Your task to perform on an android device: What's the weather? Image 0: 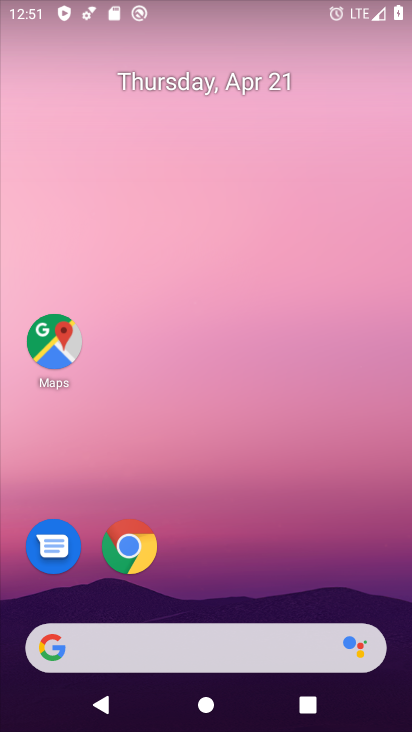
Step 0: click (146, 545)
Your task to perform on an android device: What's the weather? Image 1: 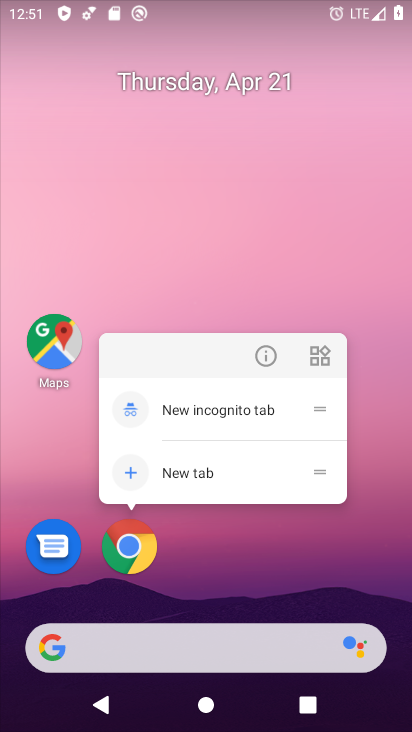
Step 1: click (134, 566)
Your task to perform on an android device: What's the weather? Image 2: 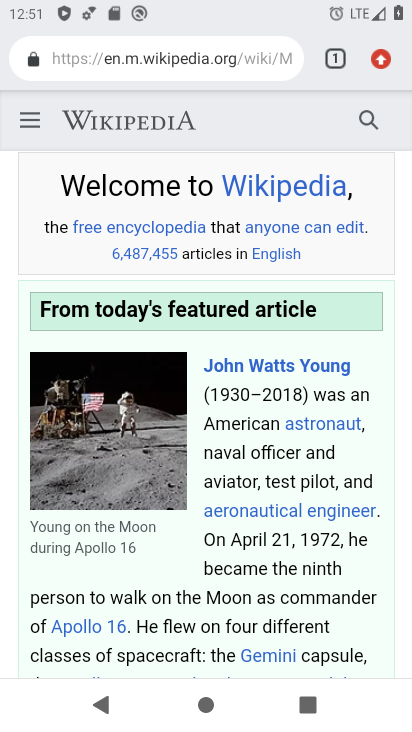
Step 2: click (171, 62)
Your task to perform on an android device: What's the weather? Image 3: 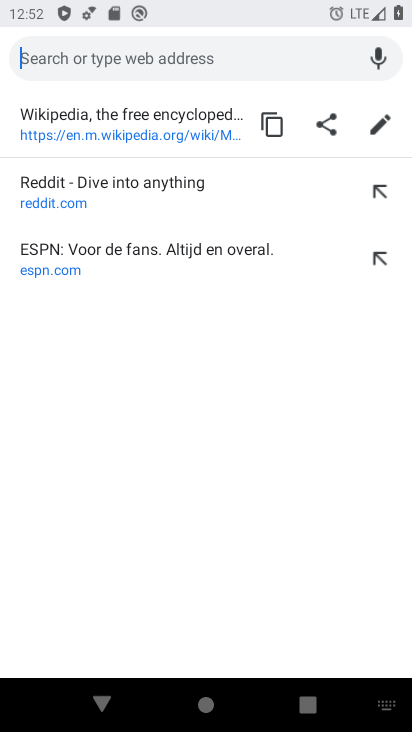
Step 3: type "whats the weather?"
Your task to perform on an android device: What's the weather? Image 4: 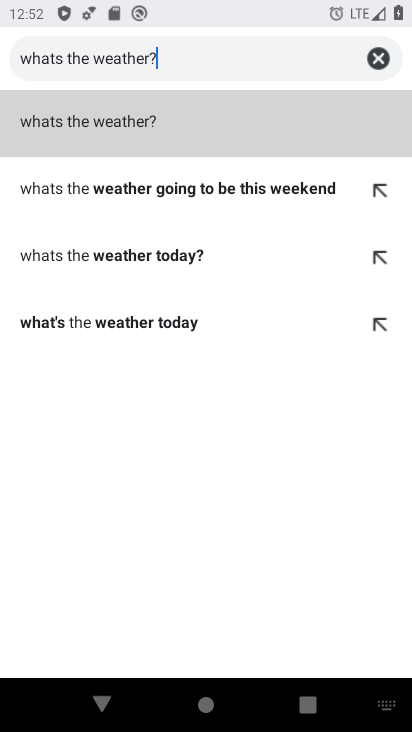
Step 4: click (104, 117)
Your task to perform on an android device: What's the weather? Image 5: 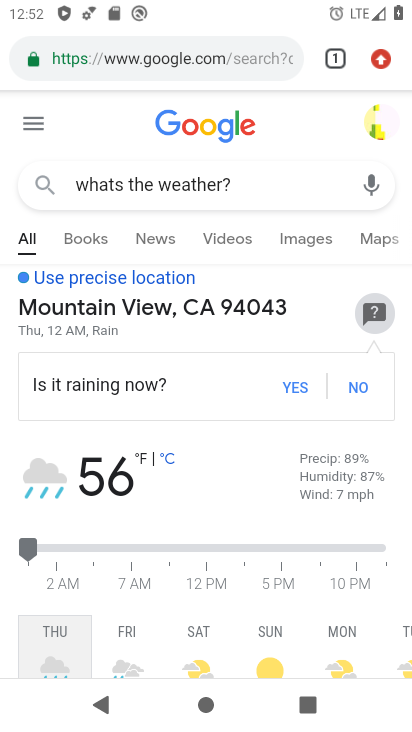
Step 5: task complete